Your task to perform on an android device: Go to battery settings Image 0: 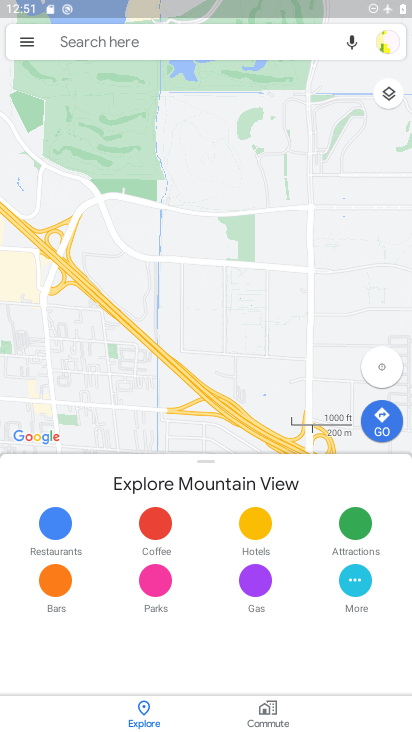
Step 0: press home button
Your task to perform on an android device: Go to battery settings Image 1: 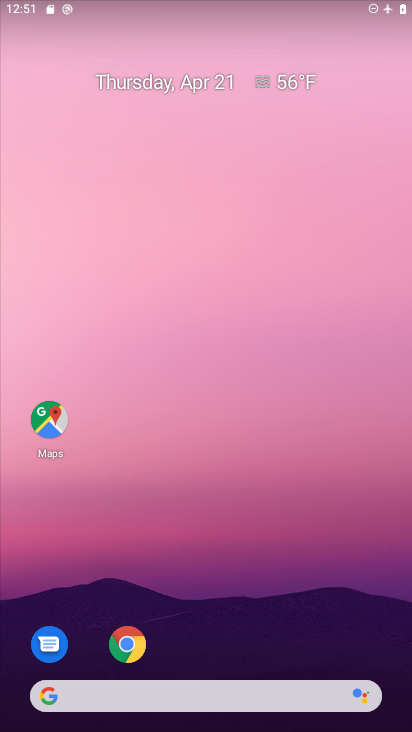
Step 1: drag from (212, 626) to (209, 140)
Your task to perform on an android device: Go to battery settings Image 2: 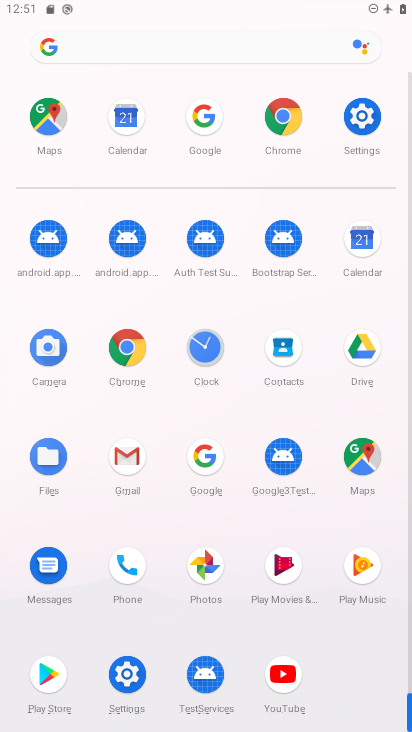
Step 2: click (368, 110)
Your task to perform on an android device: Go to battery settings Image 3: 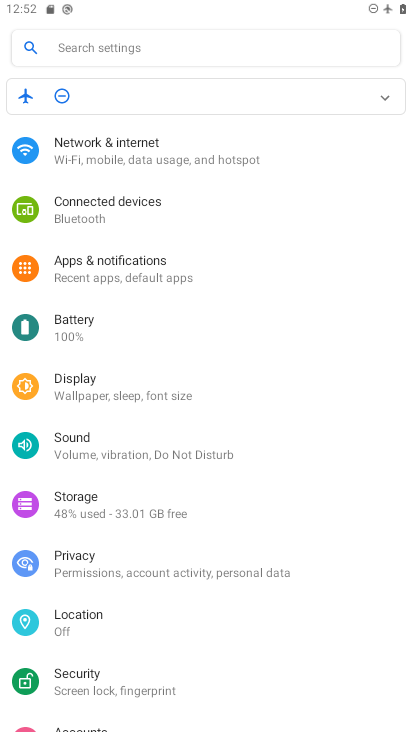
Step 3: click (71, 326)
Your task to perform on an android device: Go to battery settings Image 4: 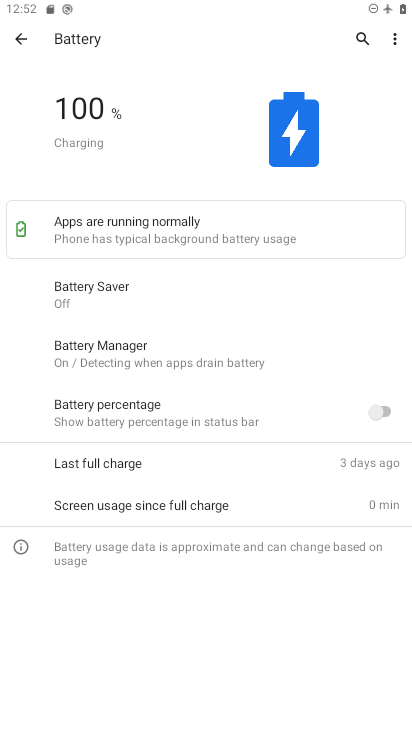
Step 4: task complete